Your task to perform on an android device: Go to accessibility settings Image 0: 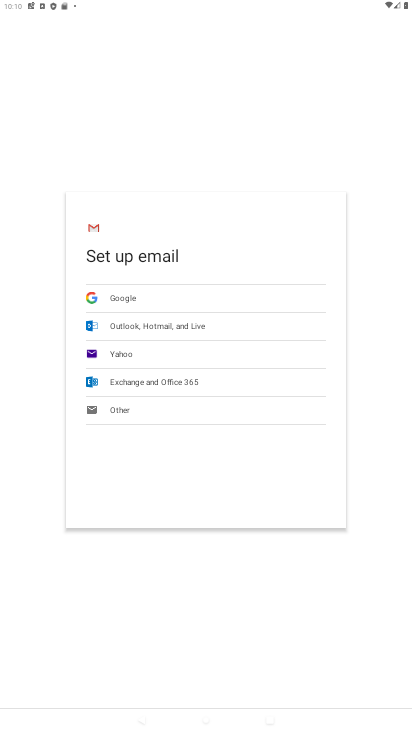
Step 0: press home button
Your task to perform on an android device: Go to accessibility settings Image 1: 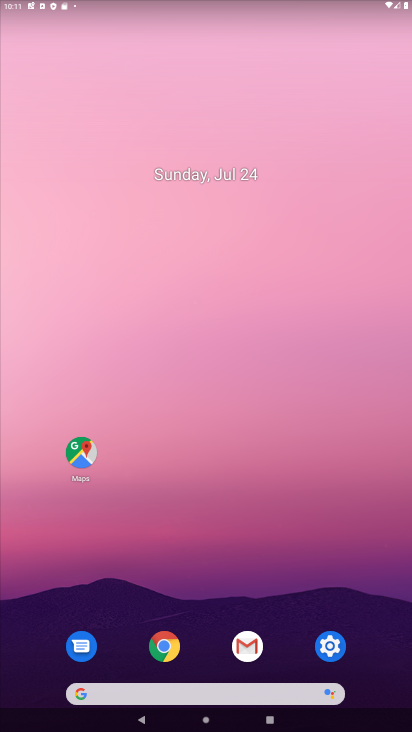
Step 1: click (329, 639)
Your task to perform on an android device: Go to accessibility settings Image 2: 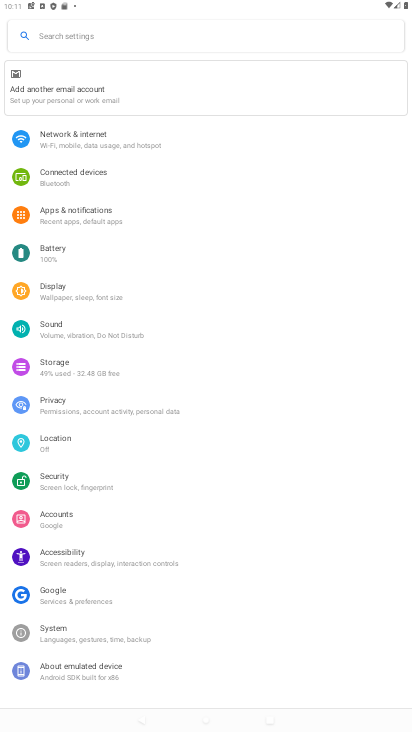
Step 2: click (68, 28)
Your task to perform on an android device: Go to accessibility settings Image 3: 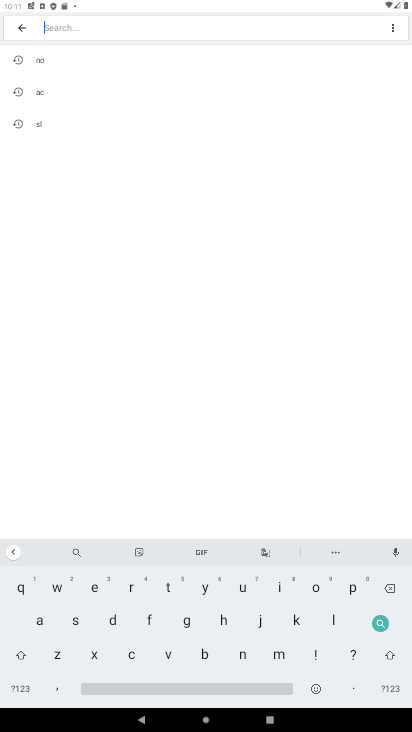
Step 3: click (35, 625)
Your task to perform on an android device: Go to accessibility settings Image 4: 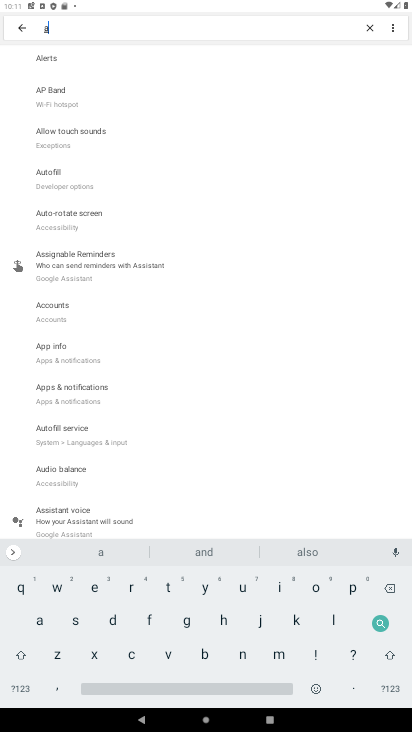
Step 4: click (131, 661)
Your task to perform on an android device: Go to accessibility settings Image 5: 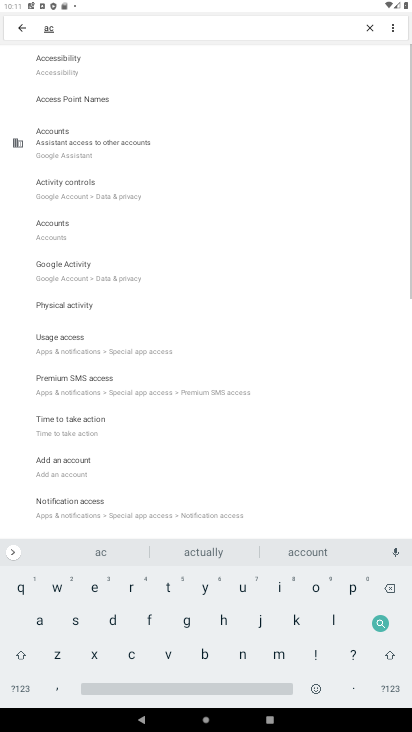
Step 5: click (108, 82)
Your task to perform on an android device: Go to accessibility settings Image 6: 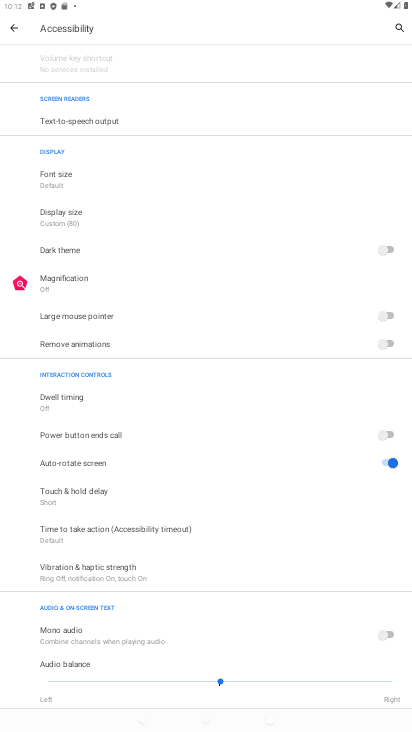
Step 6: task complete